Your task to perform on an android device: Open Chrome and go to settings Image 0: 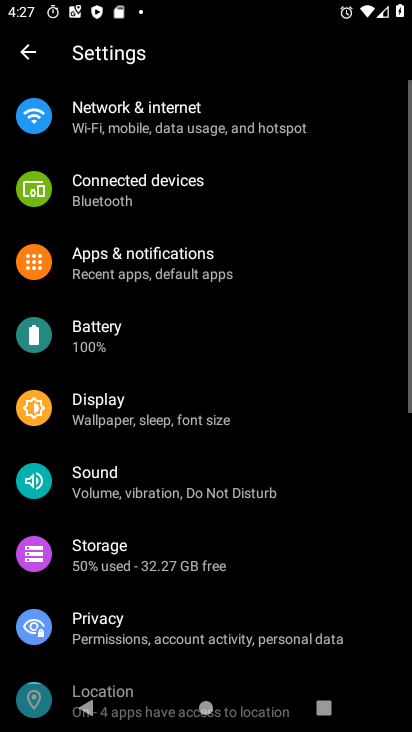
Step 0: press home button
Your task to perform on an android device: Open Chrome and go to settings Image 1: 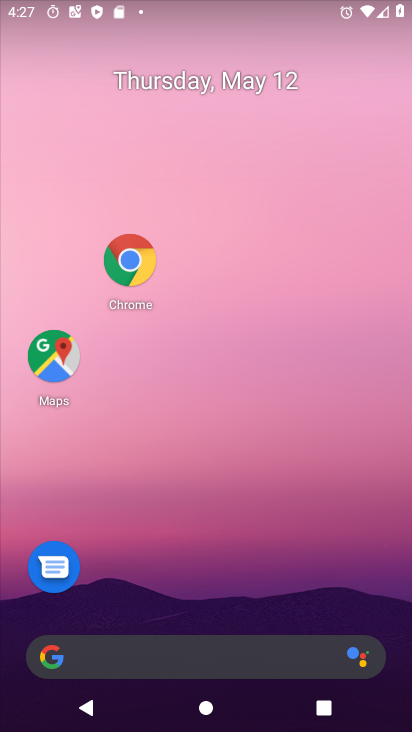
Step 1: click (140, 256)
Your task to perform on an android device: Open Chrome and go to settings Image 2: 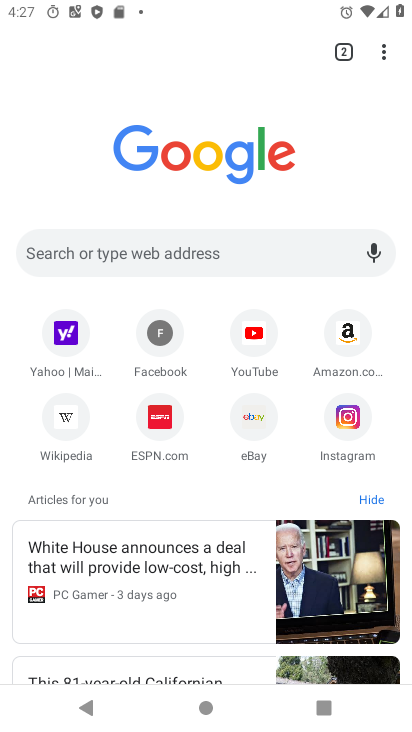
Step 2: click (379, 52)
Your task to perform on an android device: Open Chrome and go to settings Image 3: 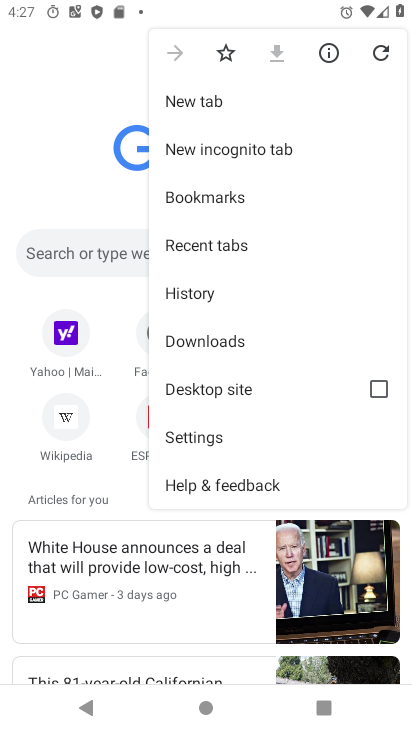
Step 3: click (196, 438)
Your task to perform on an android device: Open Chrome and go to settings Image 4: 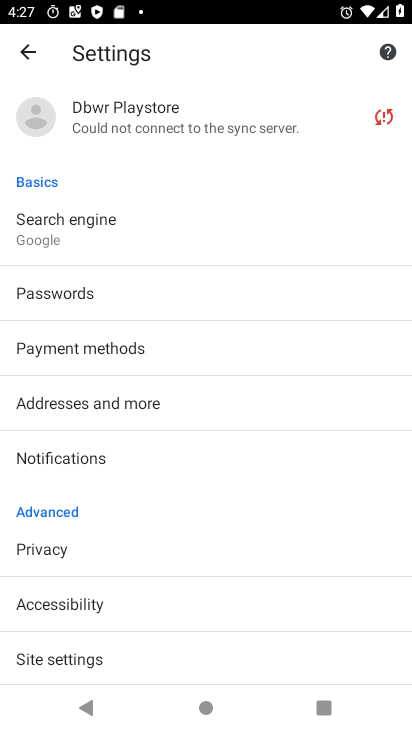
Step 4: task complete